Your task to perform on an android device: Open Google Maps Image 0: 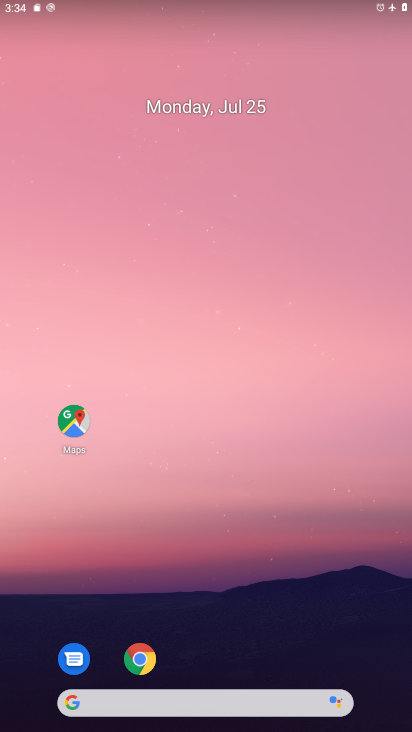
Step 0: click (64, 428)
Your task to perform on an android device: Open Google Maps Image 1: 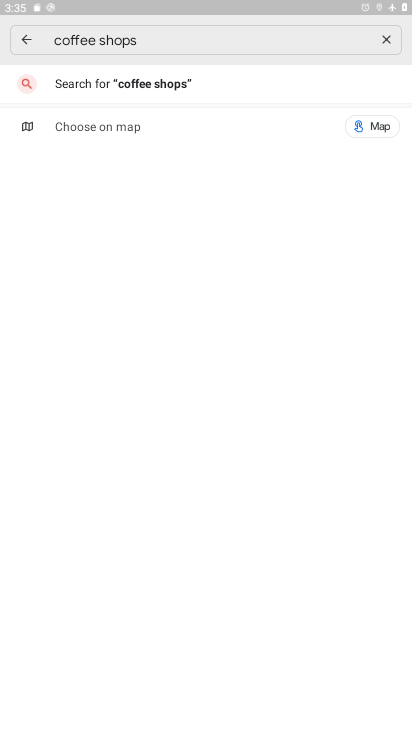
Step 1: click (23, 40)
Your task to perform on an android device: Open Google Maps Image 2: 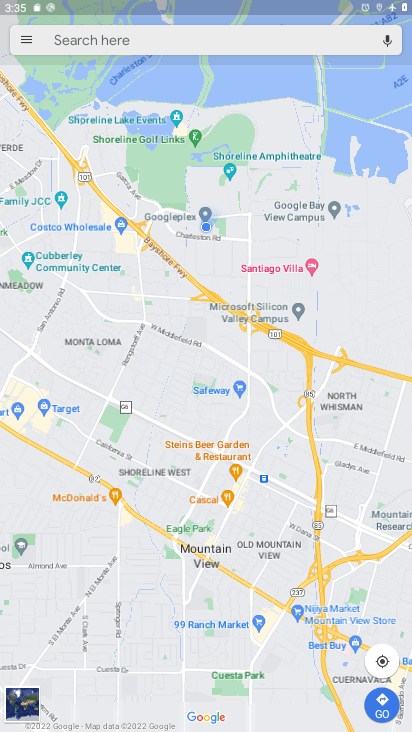
Step 2: task complete